Your task to perform on an android device: turn on priority inbox in the gmail app Image 0: 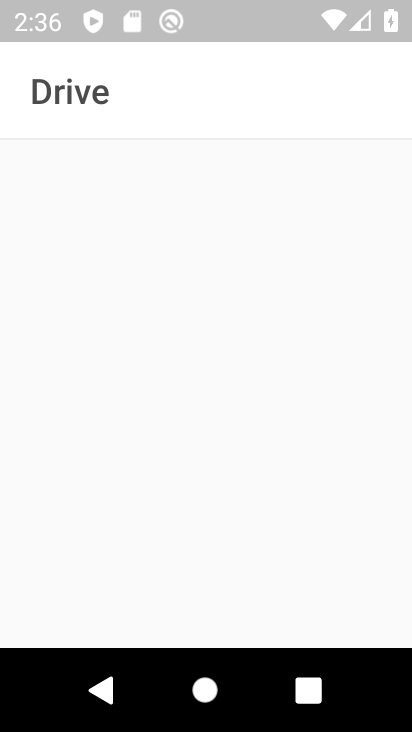
Step 0: press home button
Your task to perform on an android device: turn on priority inbox in the gmail app Image 1: 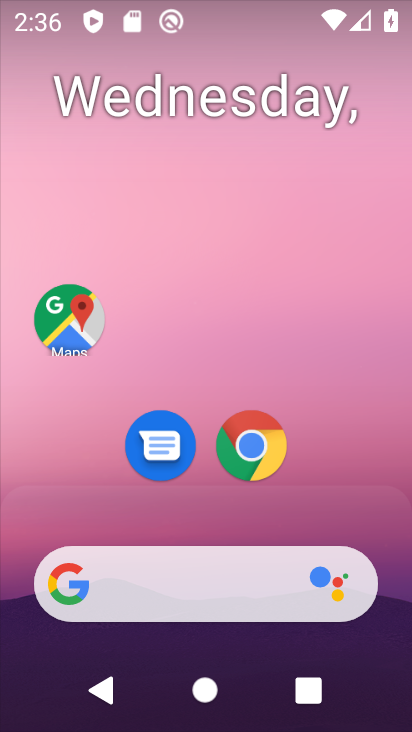
Step 1: drag from (155, 544) to (265, 119)
Your task to perform on an android device: turn on priority inbox in the gmail app Image 2: 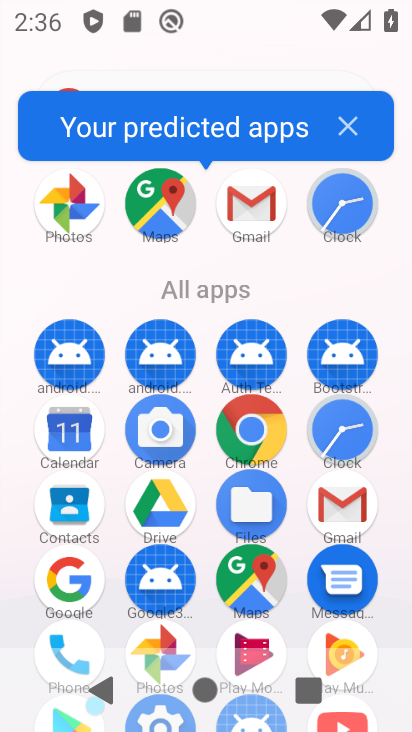
Step 2: click (330, 513)
Your task to perform on an android device: turn on priority inbox in the gmail app Image 3: 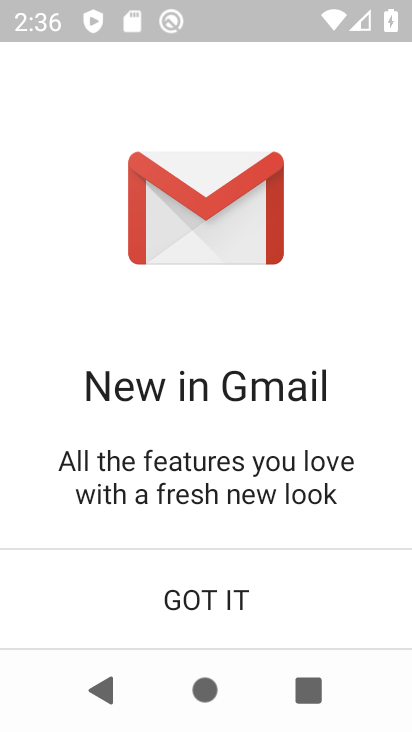
Step 3: click (249, 593)
Your task to perform on an android device: turn on priority inbox in the gmail app Image 4: 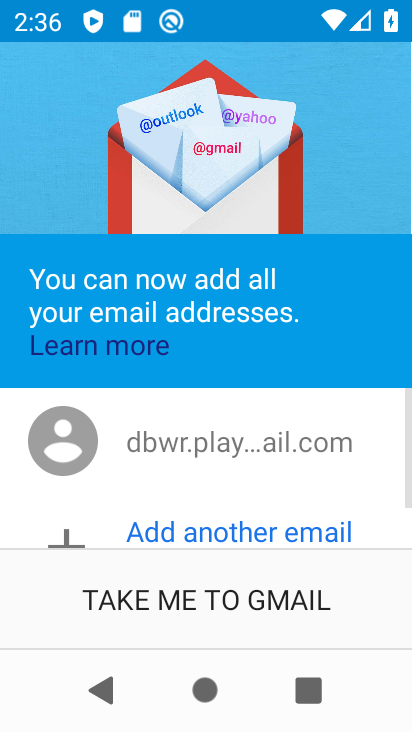
Step 4: click (272, 614)
Your task to perform on an android device: turn on priority inbox in the gmail app Image 5: 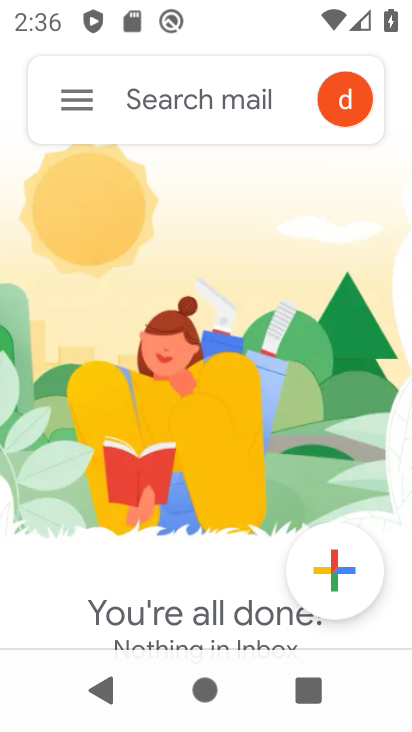
Step 5: click (82, 112)
Your task to perform on an android device: turn on priority inbox in the gmail app Image 6: 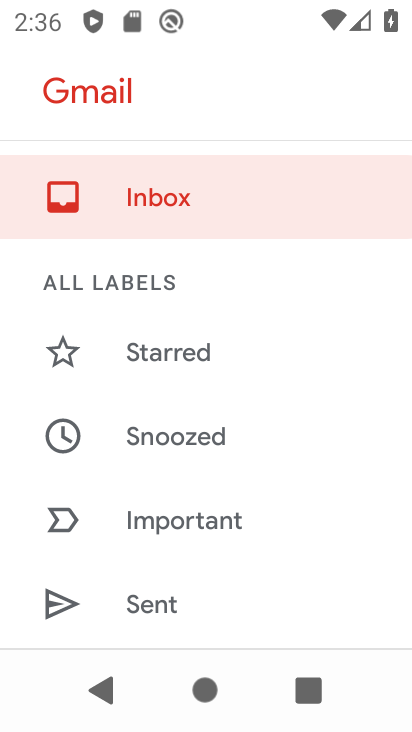
Step 6: drag from (180, 479) to (287, 196)
Your task to perform on an android device: turn on priority inbox in the gmail app Image 7: 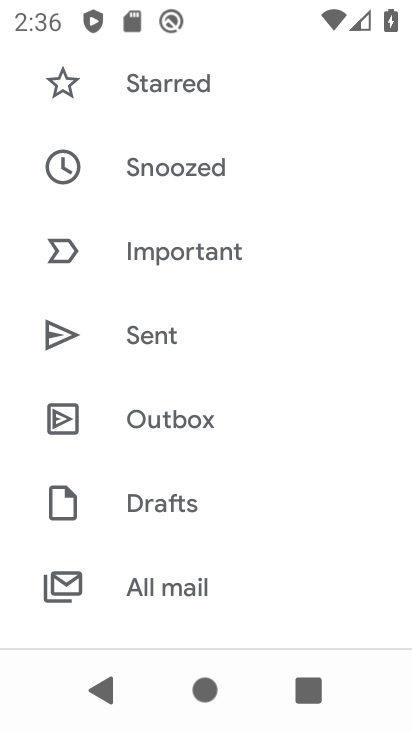
Step 7: drag from (229, 642) to (321, 216)
Your task to perform on an android device: turn on priority inbox in the gmail app Image 8: 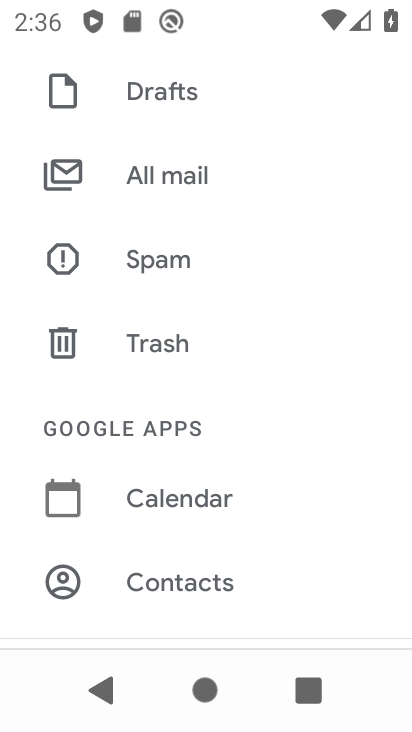
Step 8: drag from (214, 607) to (305, 286)
Your task to perform on an android device: turn on priority inbox in the gmail app Image 9: 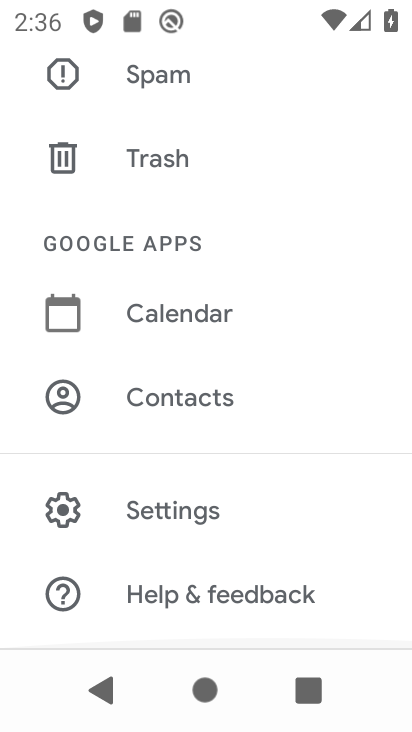
Step 9: click (212, 513)
Your task to perform on an android device: turn on priority inbox in the gmail app Image 10: 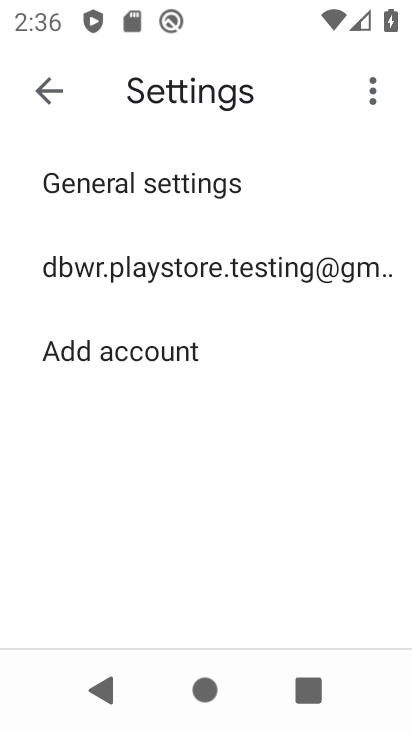
Step 10: click (256, 279)
Your task to perform on an android device: turn on priority inbox in the gmail app Image 11: 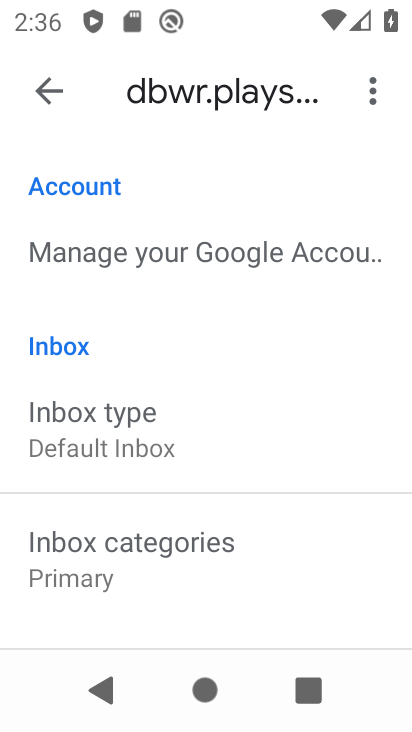
Step 11: click (182, 442)
Your task to perform on an android device: turn on priority inbox in the gmail app Image 12: 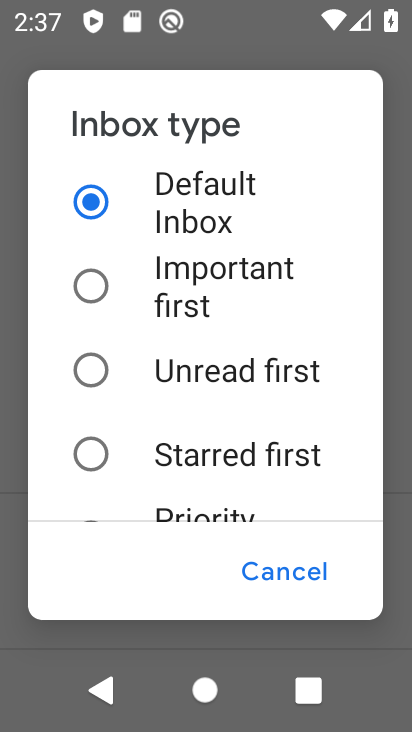
Step 12: drag from (251, 503) to (334, 173)
Your task to perform on an android device: turn on priority inbox in the gmail app Image 13: 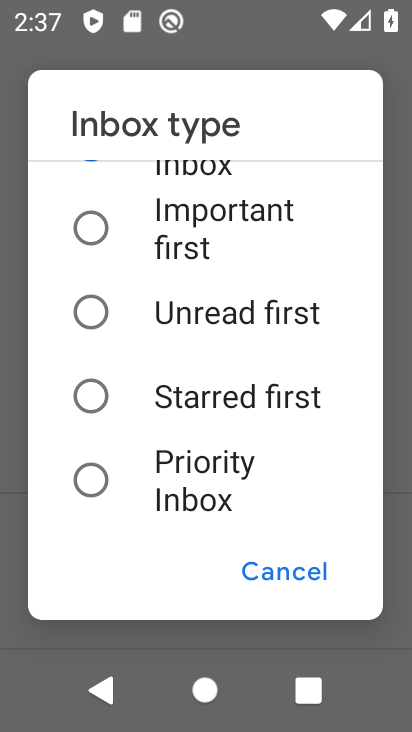
Step 13: click (229, 508)
Your task to perform on an android device: turn on priority inbox in the gmail app Image 14: 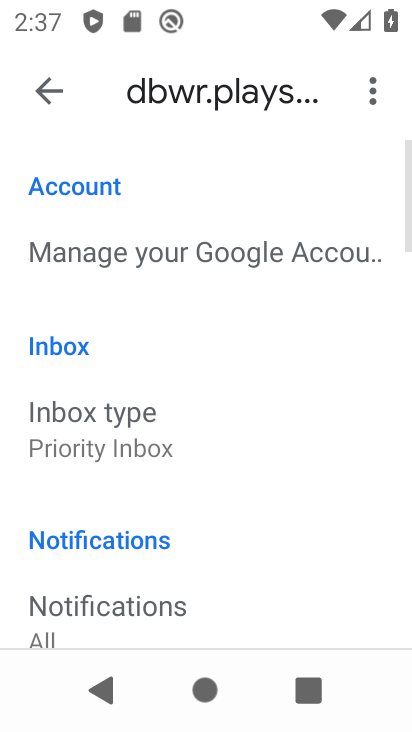
Step 14: task complete